Your task to perform on an android device: open app "Nova Launcher" (install if not already installed) Image 0: 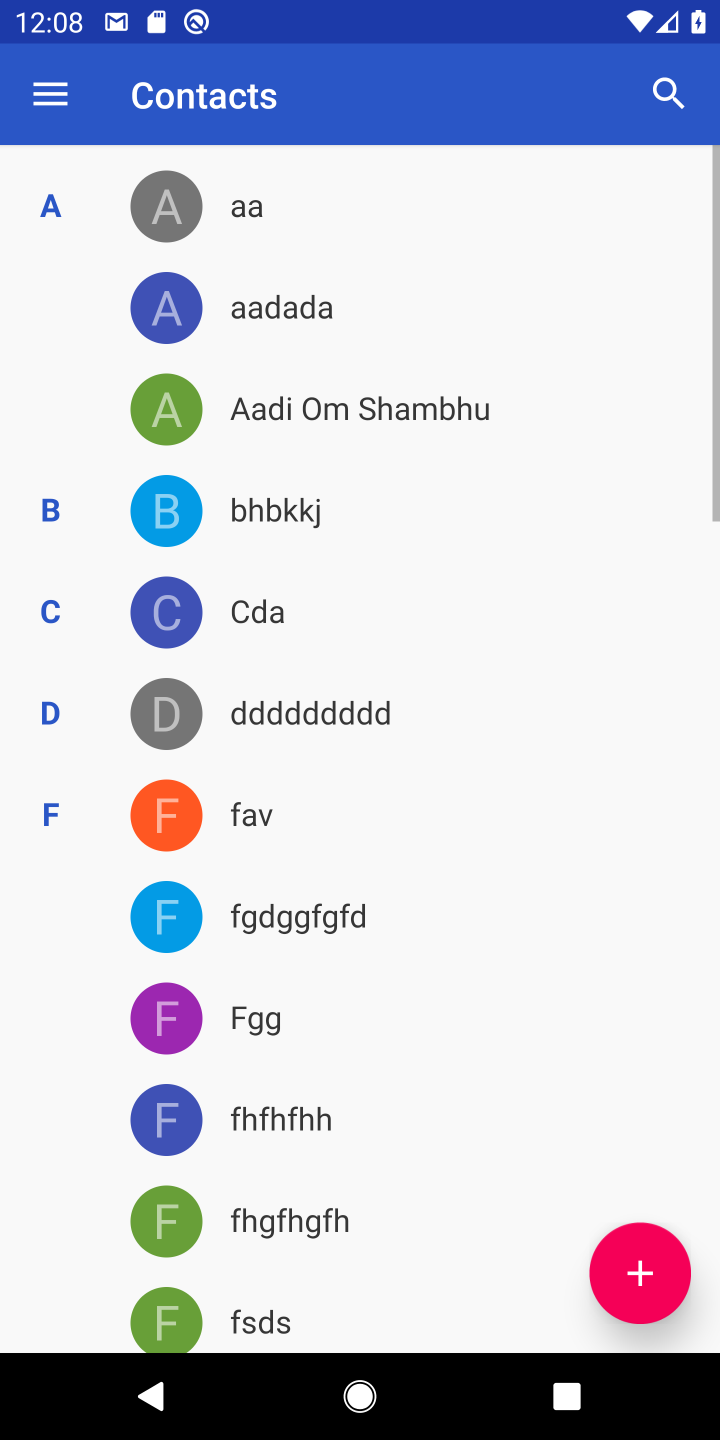
Step 0: press home button
Your task to perform on an android device: open app "Nova Launcher" (install if not already installed) Image 1: 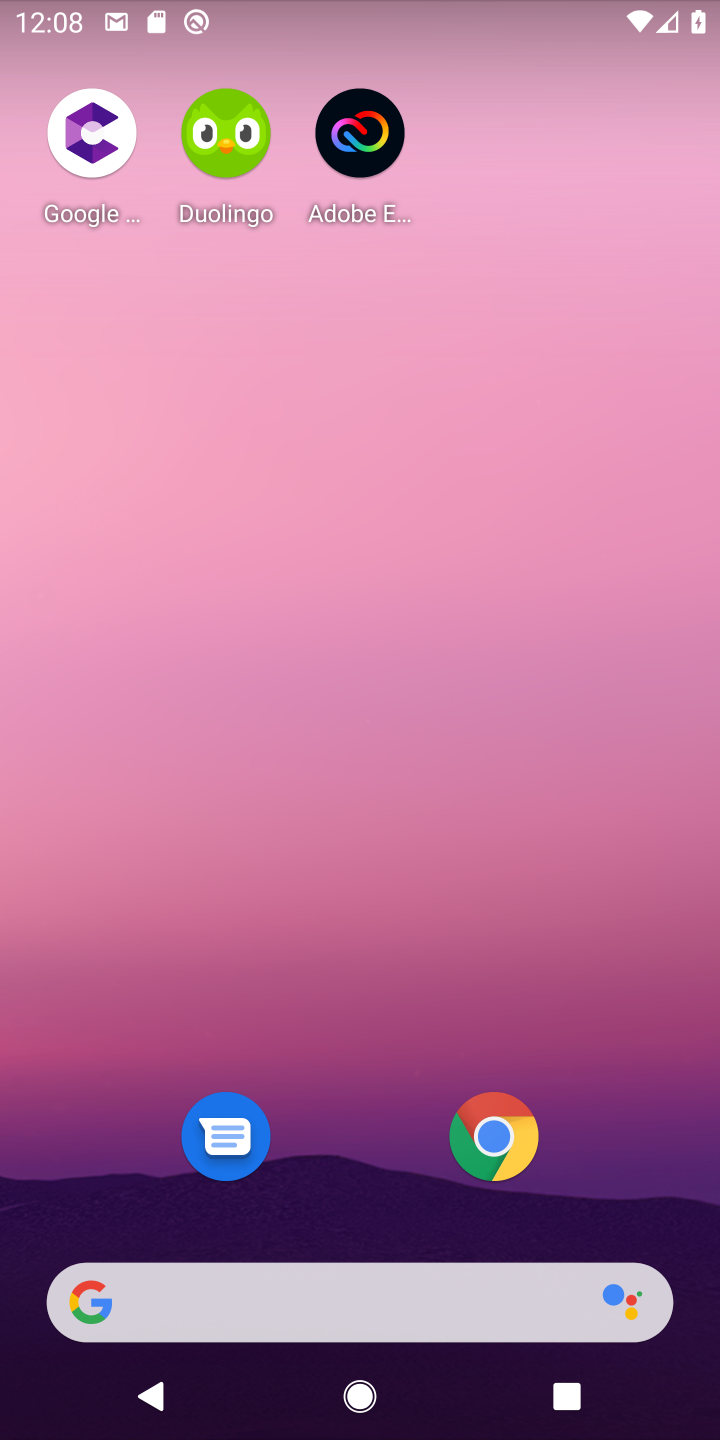
Step 1: press home button
Your task to perform on an android device: open app "Nova Launcher" (install if not already installed) Image 2: 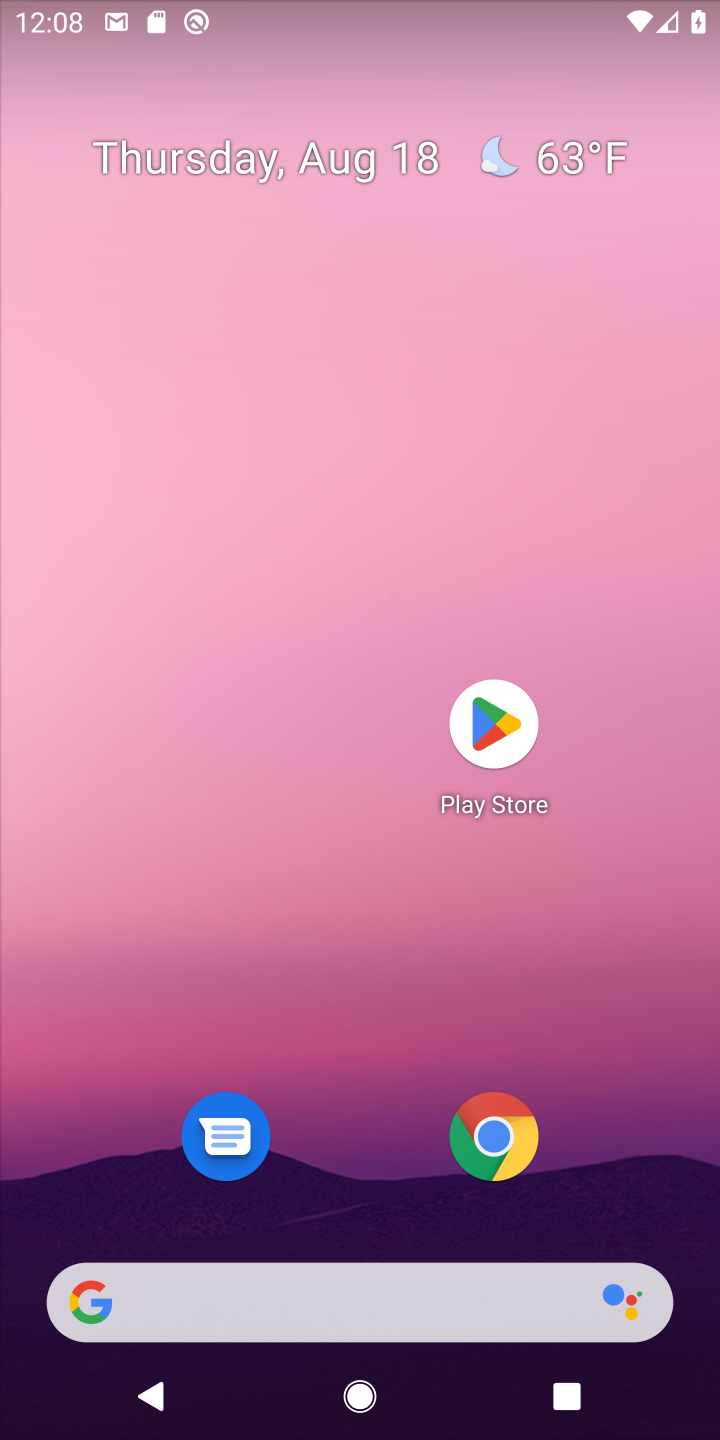
Step 2: click (492, 739)
Your task to perform on an android device: open app "Nova Launcher" (install if not already installed) Image 3: 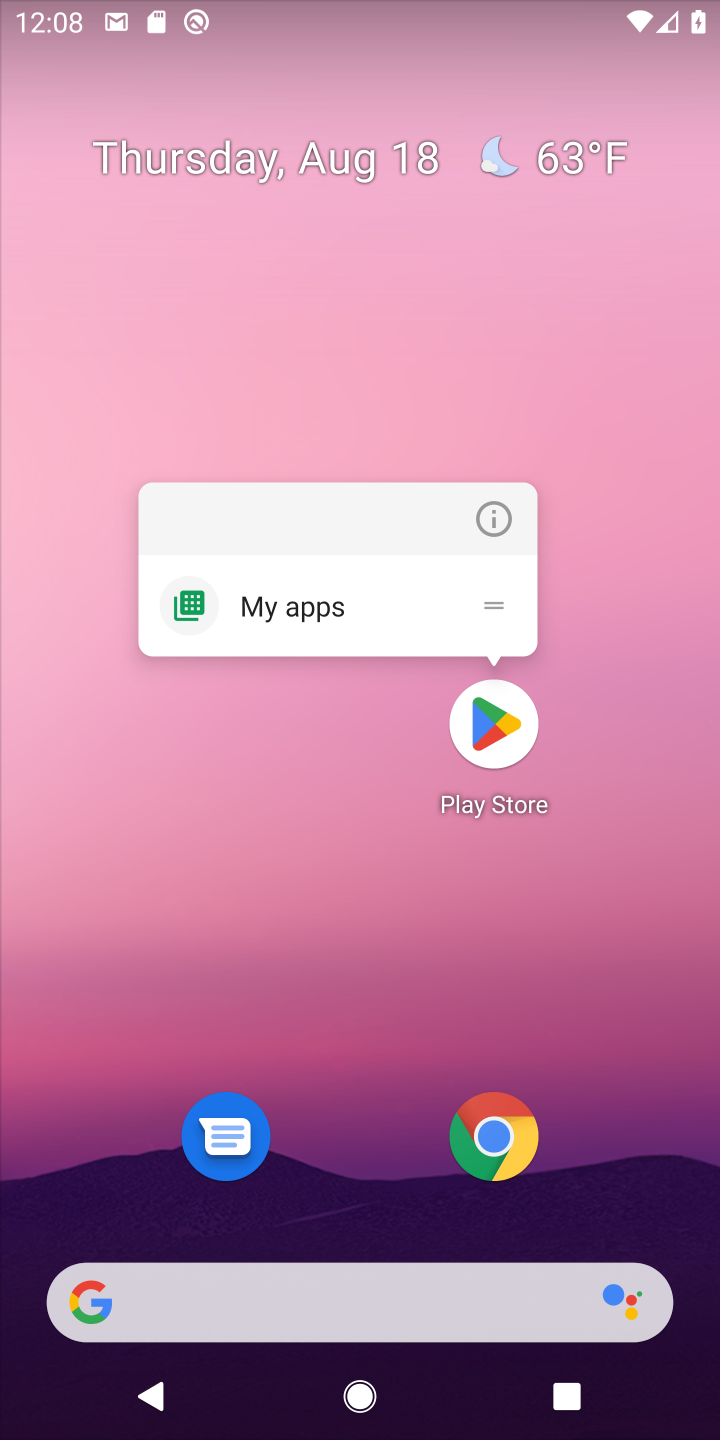
Step 3: click (501, 718)
Your task to perform on an android device: open app "Nova Launcher" (install if not already installed) Image 4: 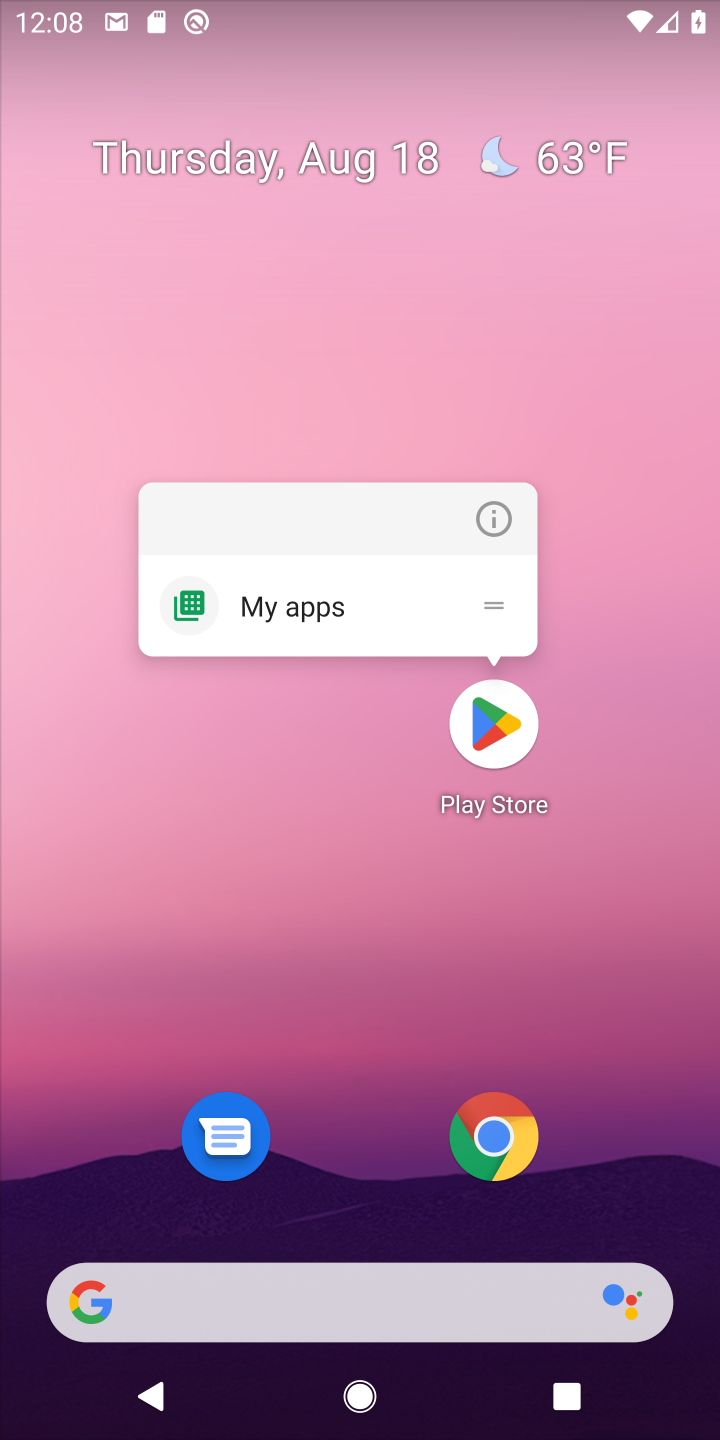
Step 4: click (489, 729)
Your task to perform on an android device: open app "Nova Launcher" (install if not already installed) Image 5: 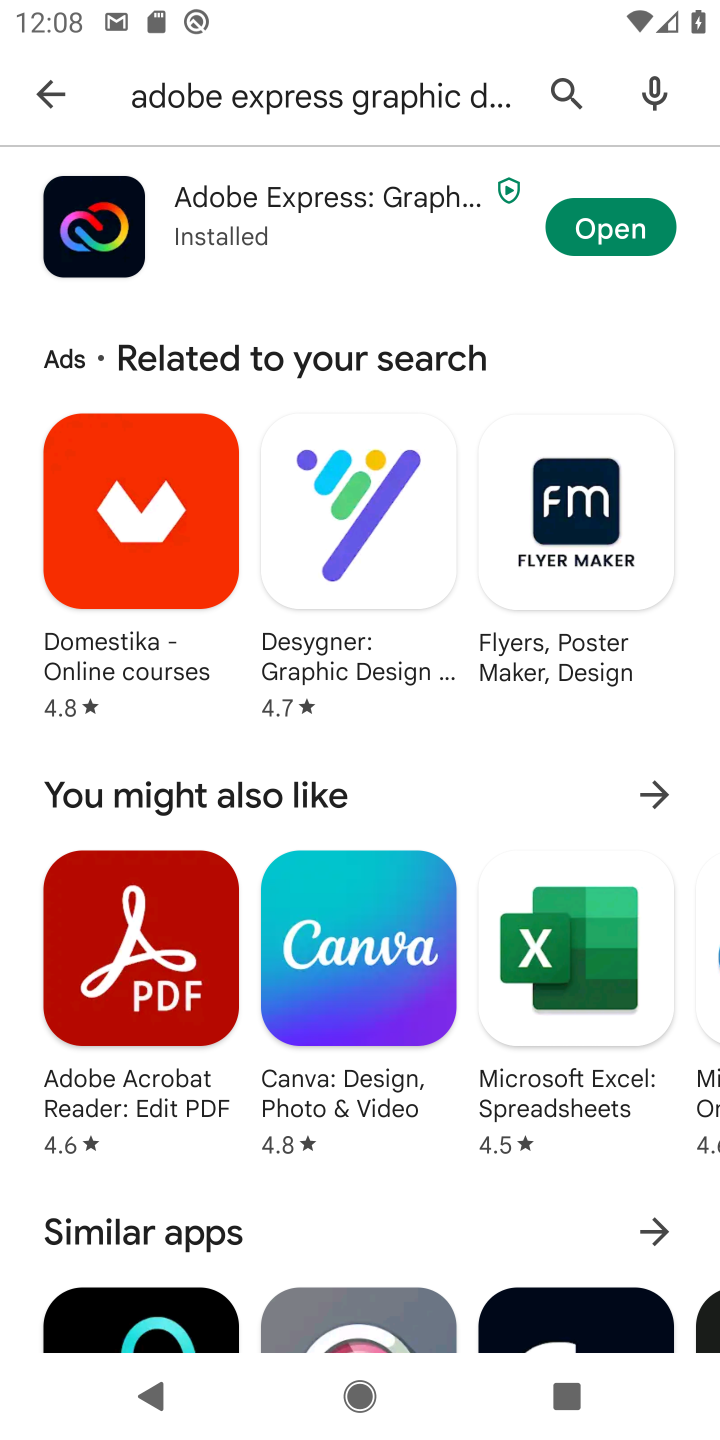
Step 5: click (565, 90)
Your task to perform on an android device: open app "Nova Launcher" (install if not already installed) Image 6: 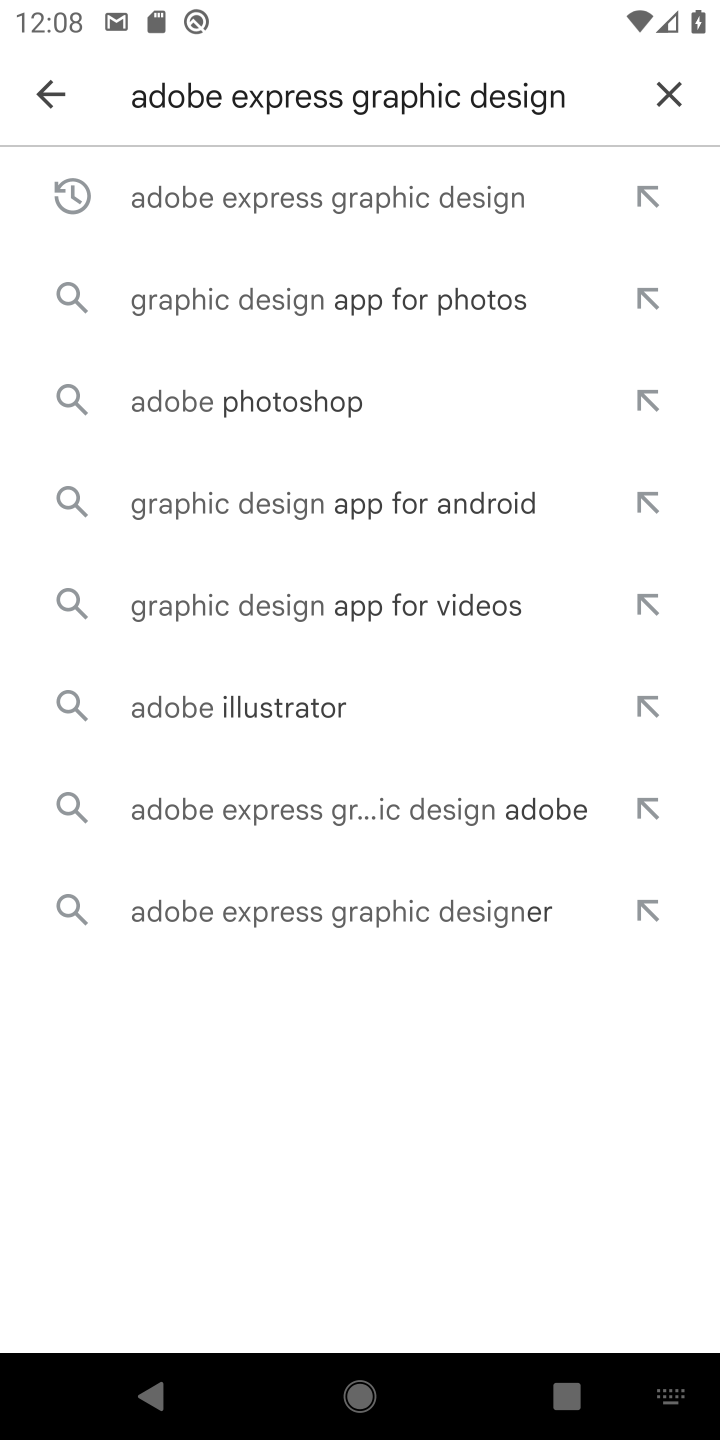
Step 6: click (677, 86)
Your task to perform on an android device: open app "Nova Launcher" (install if not already installed) Image 7: 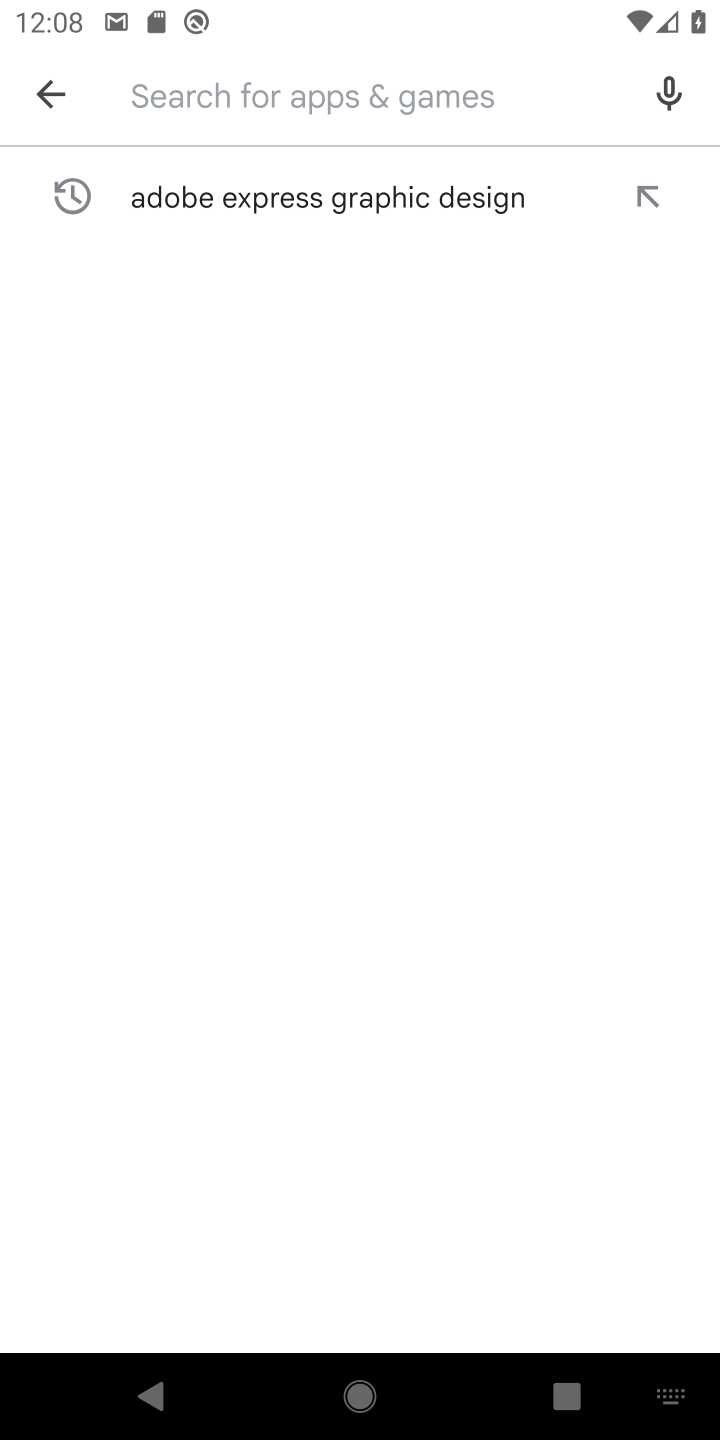
Step 7: type "Nova Launcher"
Your task to perform on an android device: open app "Nova Launcher" (install if not already installed) Image 8: 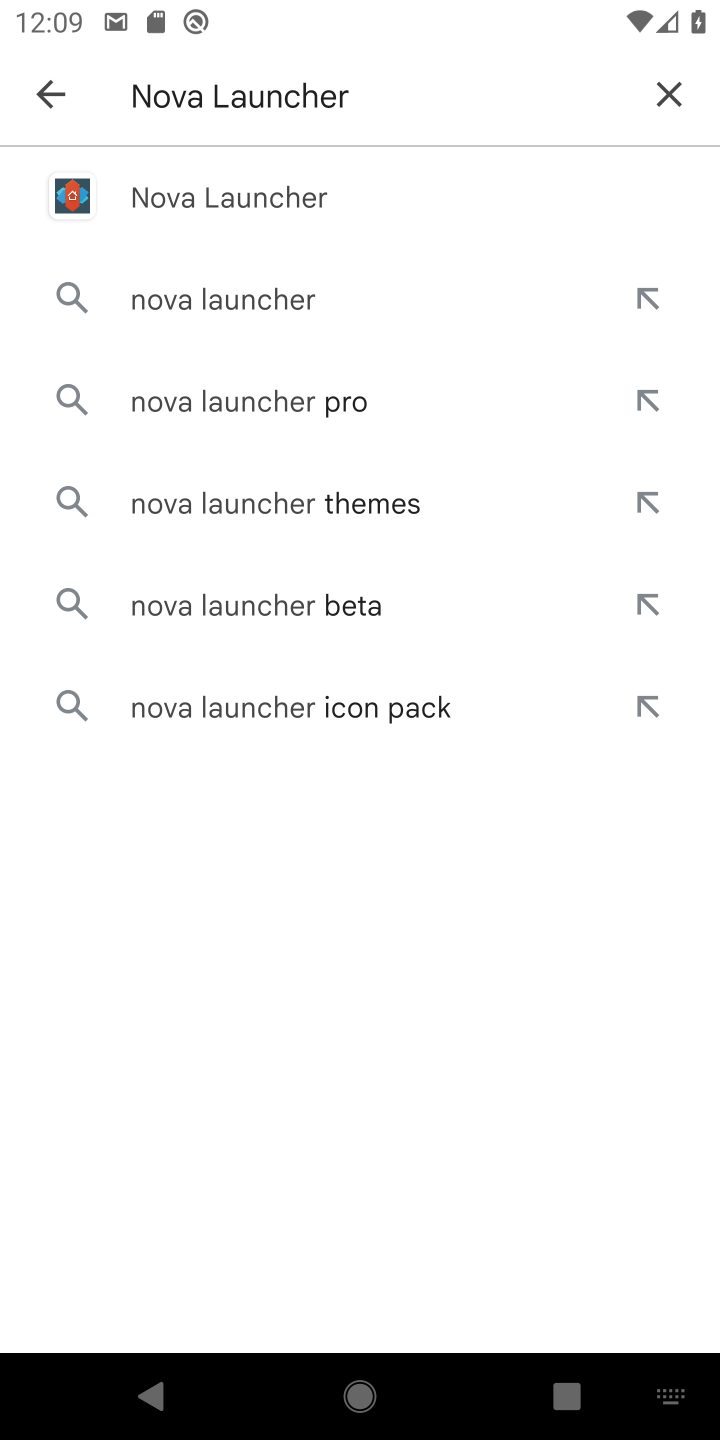
Step 8: click (307, 201)
Your task to perform on an android device: open app "Nova Launcher" (install if not already installed) Image 9: 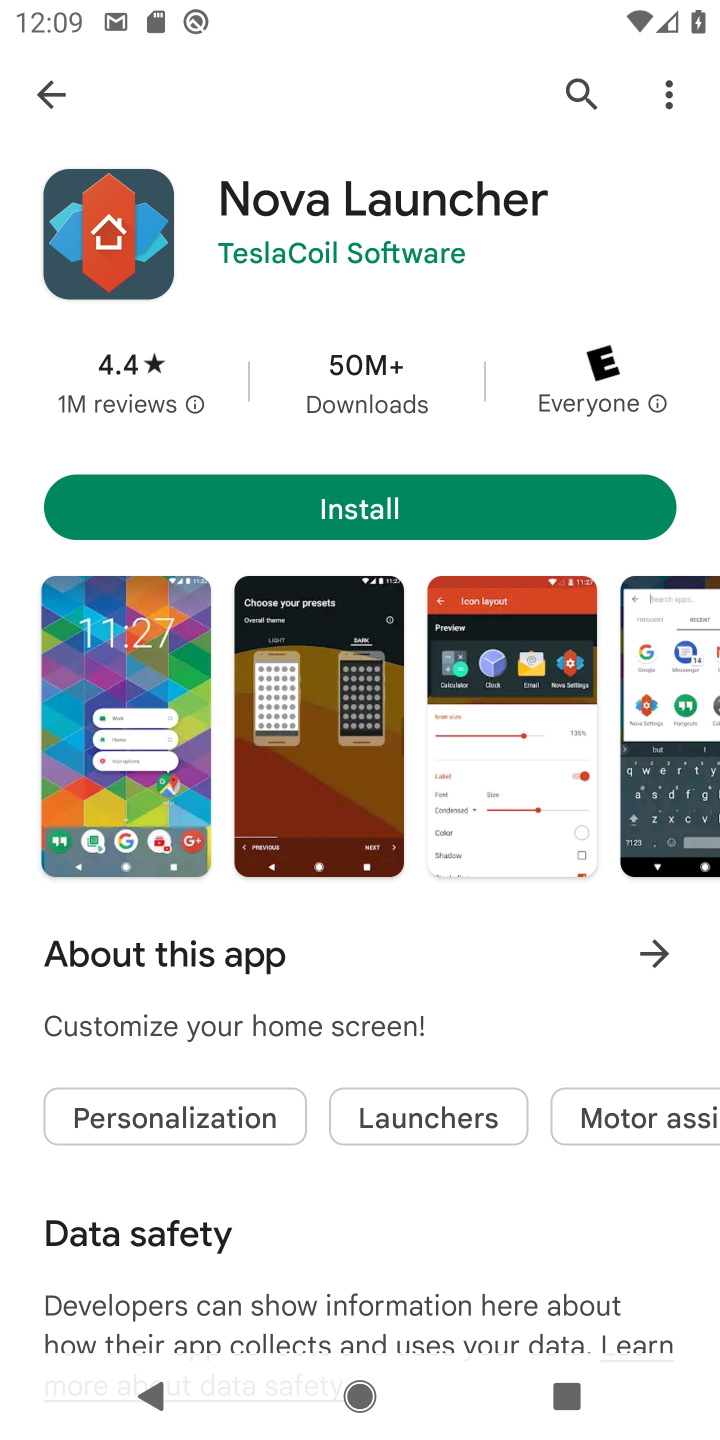
Step 9: click (388, 503)
Your task to perform on an android device: open app "Nova Launcher" (install if not already installed) Image 10: 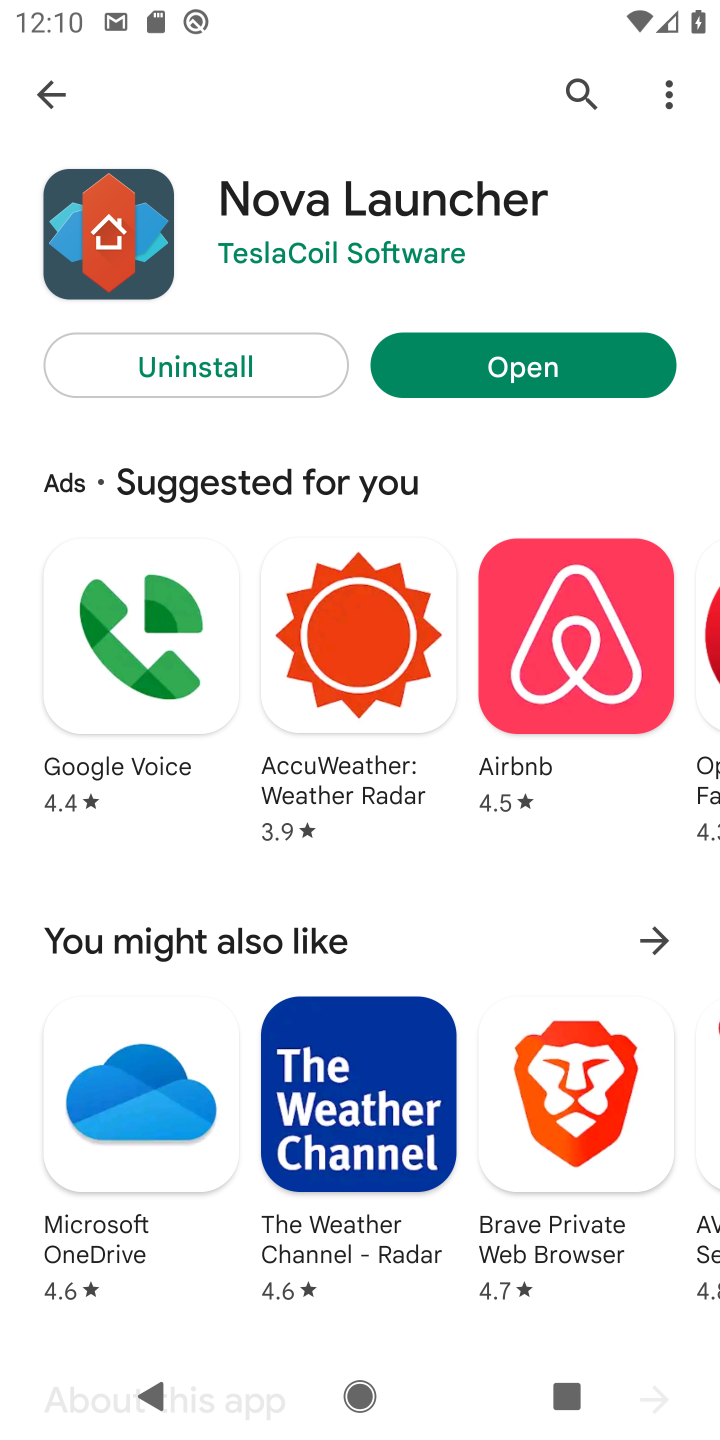
Step 10: click (581, 371)
Your task to perform on an android device: open app "Nova Launcher" (install if not already installed) Image 11: 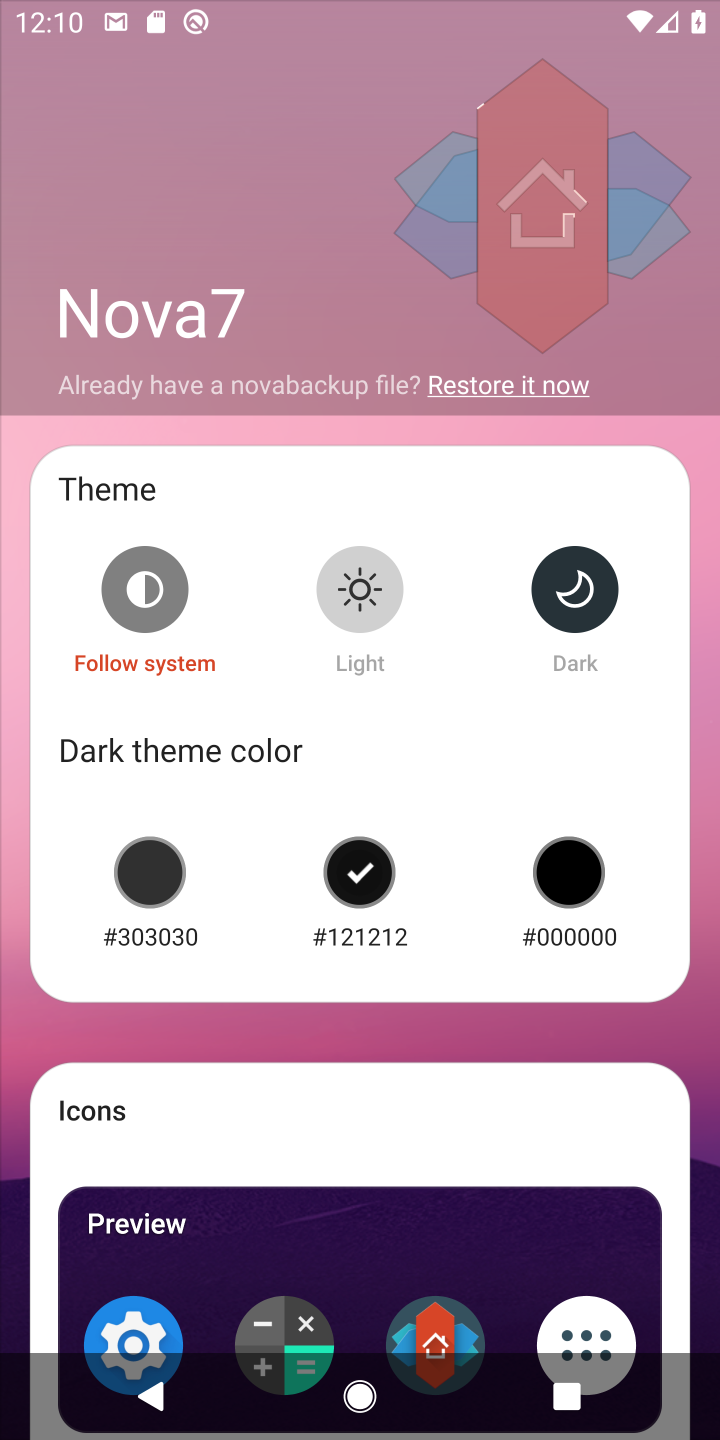
Step 11: task complete